Your task to perform on an android device: Open the calendar app, open the side menu, and click the "Day" option Image 0: 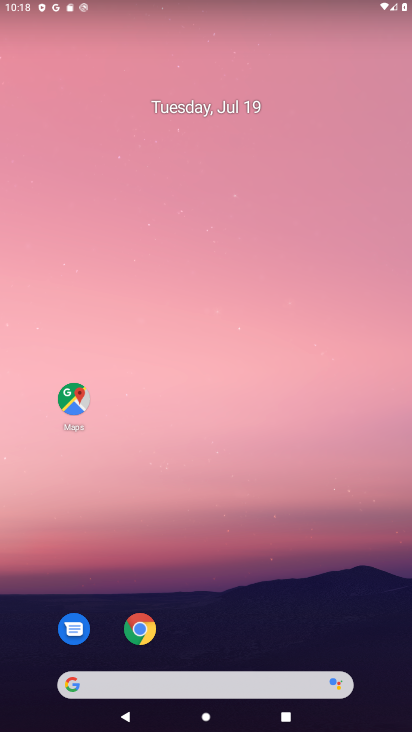
Step 0: drag from (292, 640) to (305, 264)
Your task to perform on an android device: Open the calendar app, open the side menu, and click the "Day" option Image 1: 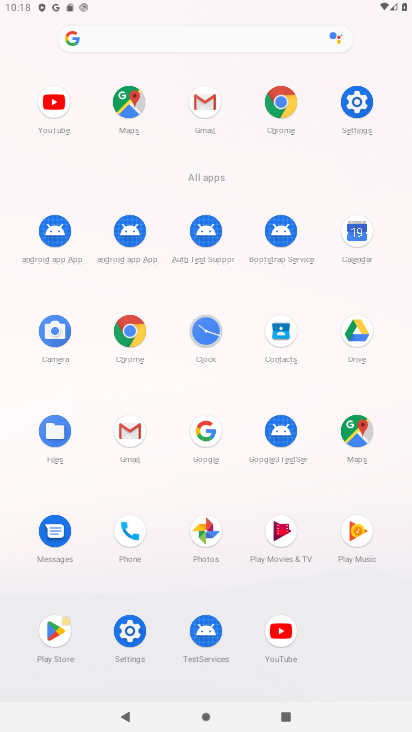
Step 1: click (350, 241)
Your task to perform on an android device: Open the calendar app, open the side menu, and click the "Day" option Image 2: 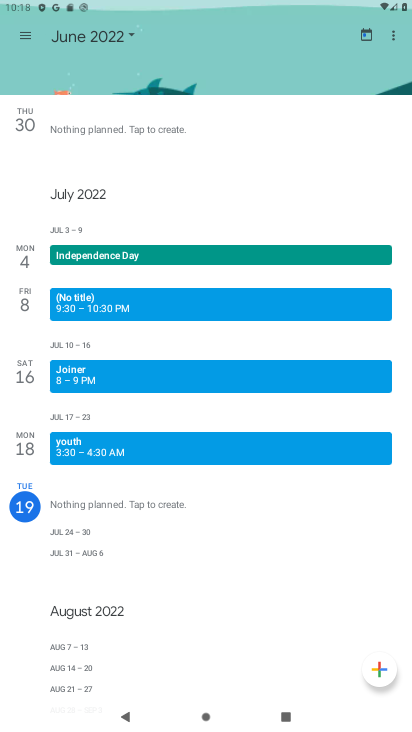
Step 2: click (32, 30)
Your task to perform on an android device: Open the calendar app, open the side menu, and click the "Day" option Image 3: 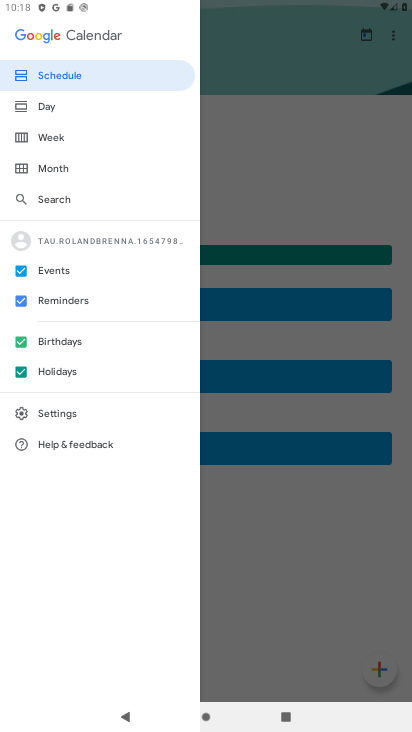
Step 3: click (59, 102)
Your task to perform on an android device: Open the calendar app, open the side menu, and click the "Day" option Image 4: 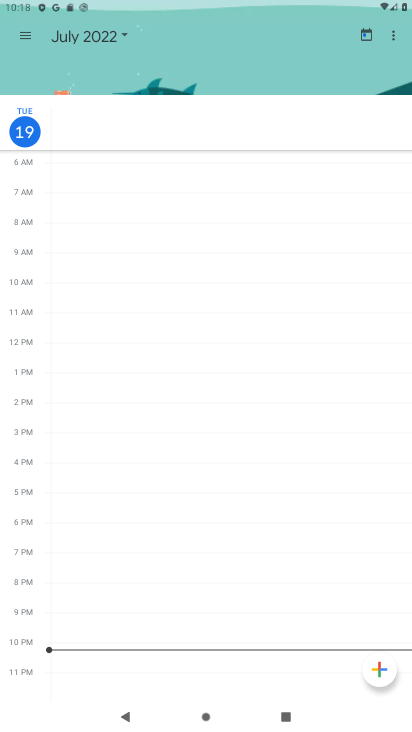
Step 4: task complete